Your task to perform on an android device: Show me popular videos on Youtube Image 0: 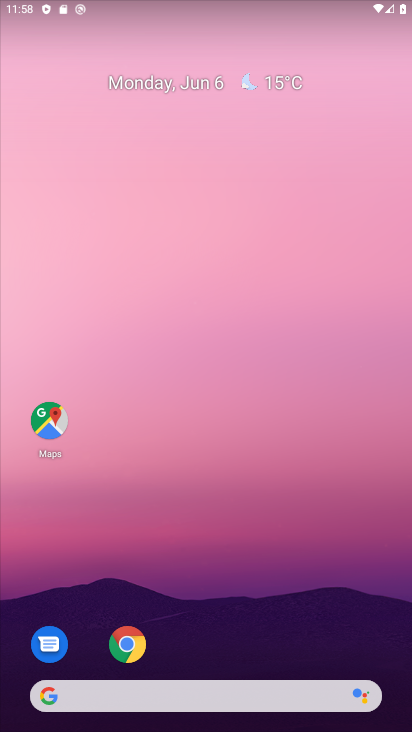
Step 0: drag from (232, 506) to (246, 60)
Your task to perform on an android device: Show me popular videos on Youtube Image 1: 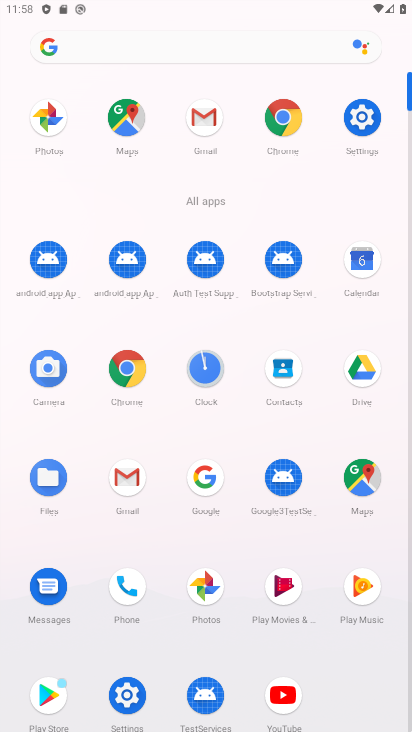
Step 1: click (240, 694)
Your task to perform on an android device: Show me popular videos on Youtube Image 2: 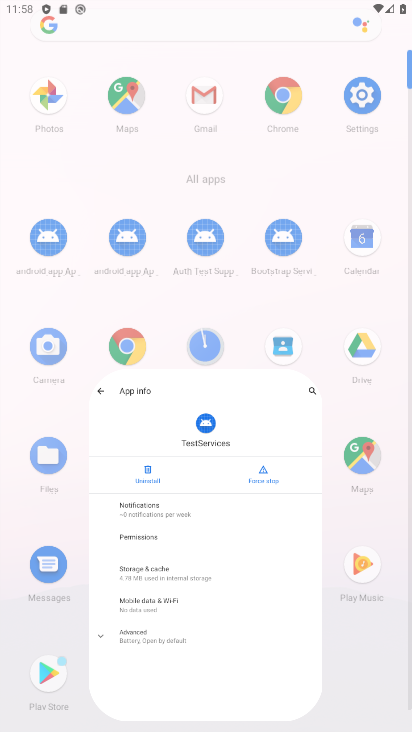
Step 2: click (271, 687)
Your task to perform on an android device: Show me popular videos on Youtube Image 3: 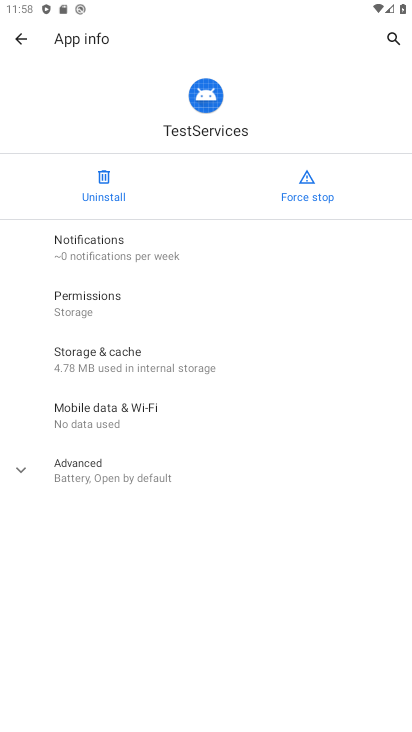
Step 3: click (29, 29)
Your task to perform on an android device: Show me popular videos on Youtube Image 4: 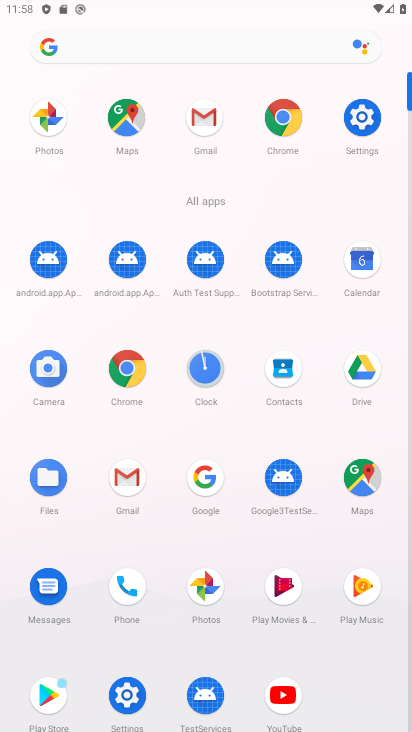
Step 4: click (284, 688)
Your task to perform on an android device: Show me popular videos on Youtube Image 5: 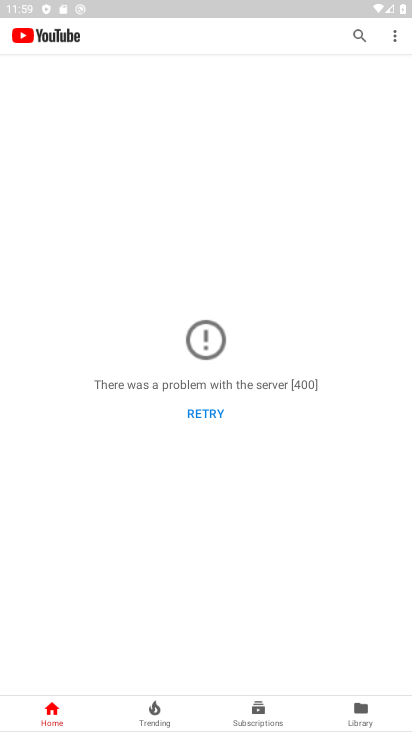
Step 5: click (215, 409)
Your task to perform on an android device: Show me popular videos on Youtube Image 6: 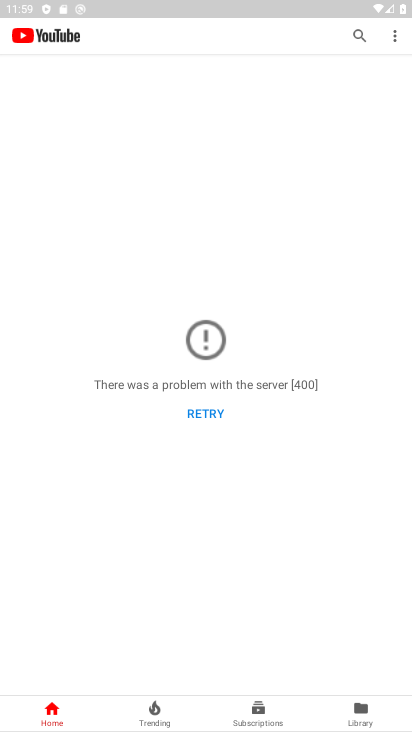
Step 6: task complete